Your task to perform on an android device: check battery use Image 0: 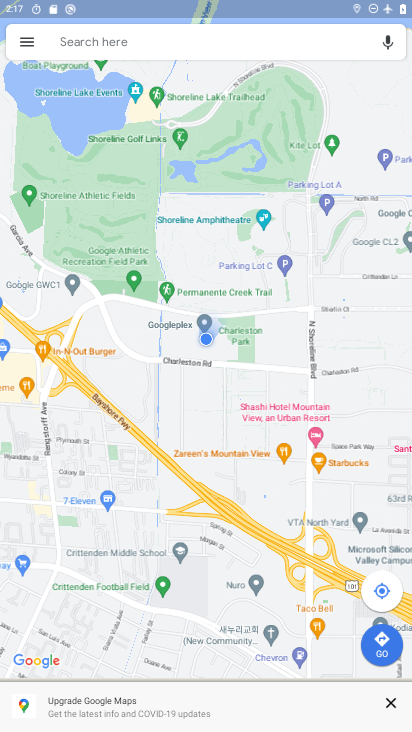
Step 0: press home button
Your task to perform on an android device: check battery use Image 1: 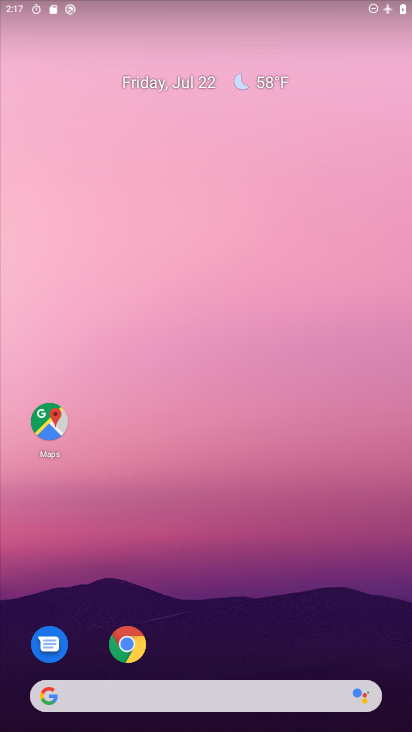
Step 1: drag from (233, 665) to (234, 189)
Your task to perform on an android device: check battery use Image 2: 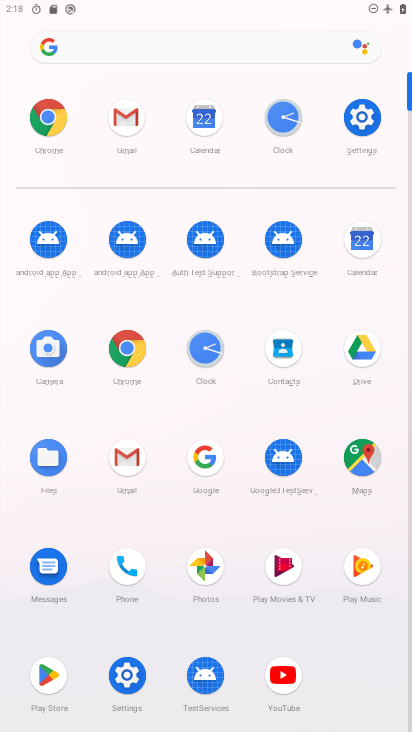
Step 2: click (353, 118)
Your task to perform on an android device: check battery use Image 3: 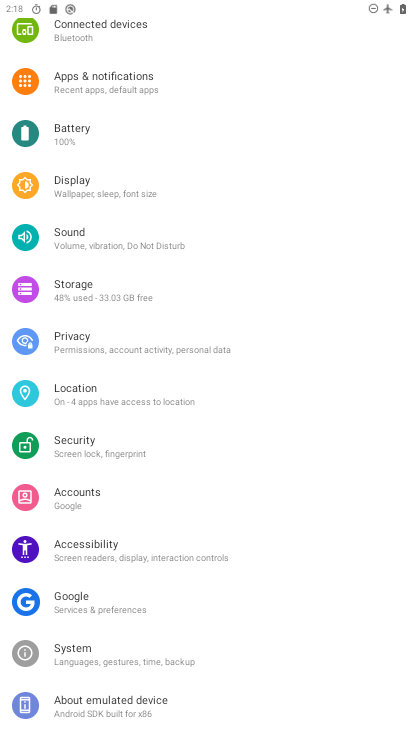
Step 3: click (146, 137)
Your task to perform on an android device: check battery use Image 4: 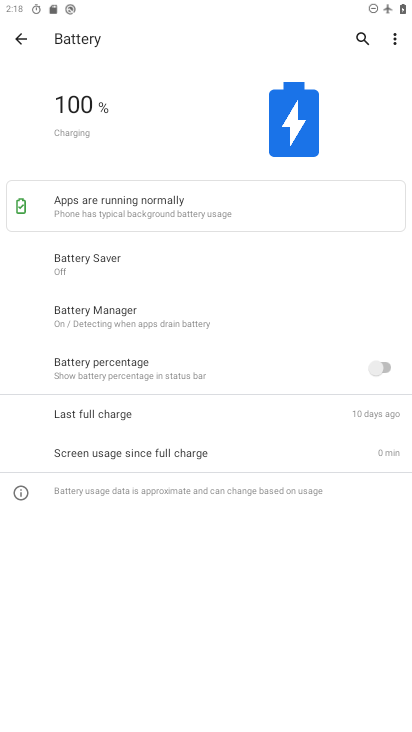
Step 4: click (391, 36)
Your task to perform on an android device: check battery use Image 5: 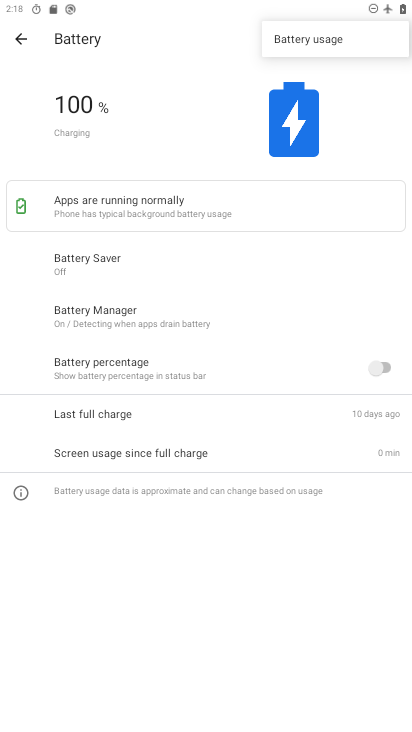
Step 5: click (341, 48)
Your task to perform on an android device: check battery use Image 6: 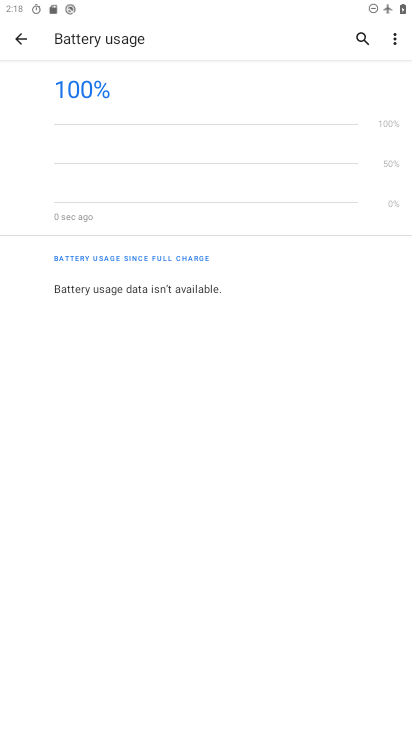
Step 6: task complete